Your task to perform on an android device: Open Android settings Image 0: 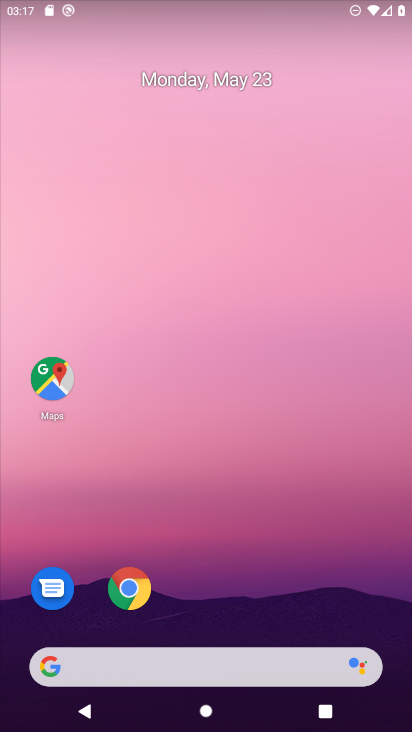
Step 0: drag from (220, 730) to (223, 124)
Your task to perform on an android device: Open Android settings Image 1: 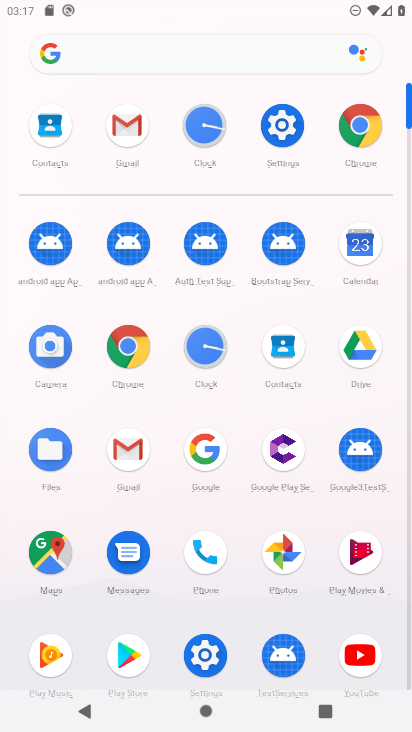
Step 1: click (279, 130)
Your task to perform on an android device: Open Android settings Image 2: 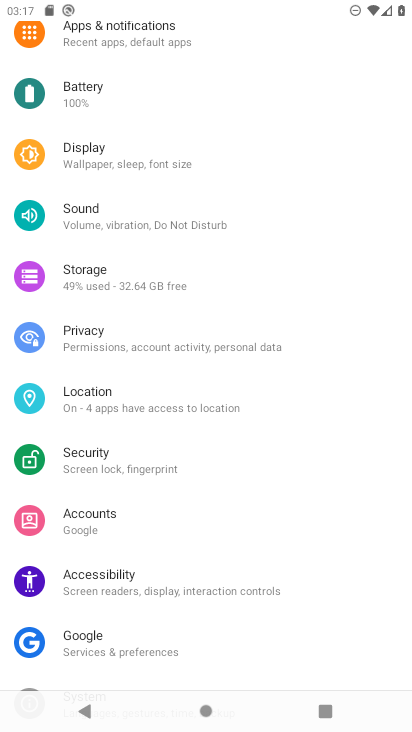
Step 2: task complete